Your task to perform on an android device: Search for the best burger restaurants on Maps Image 0: 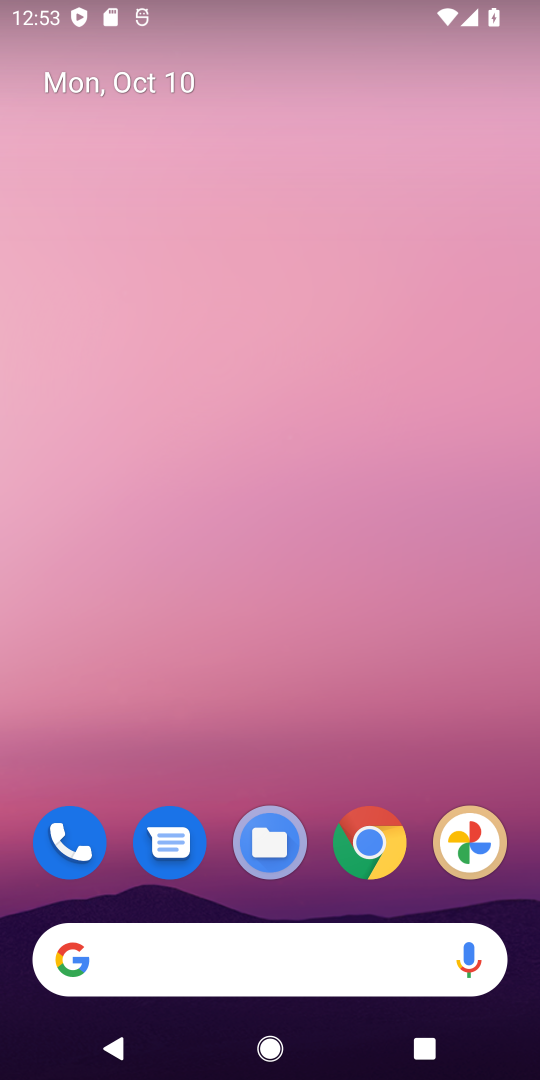
Step 0: click (354, 863)
Your task to perform on an android device: Search for the best burger restaurants on Maps Image 1: 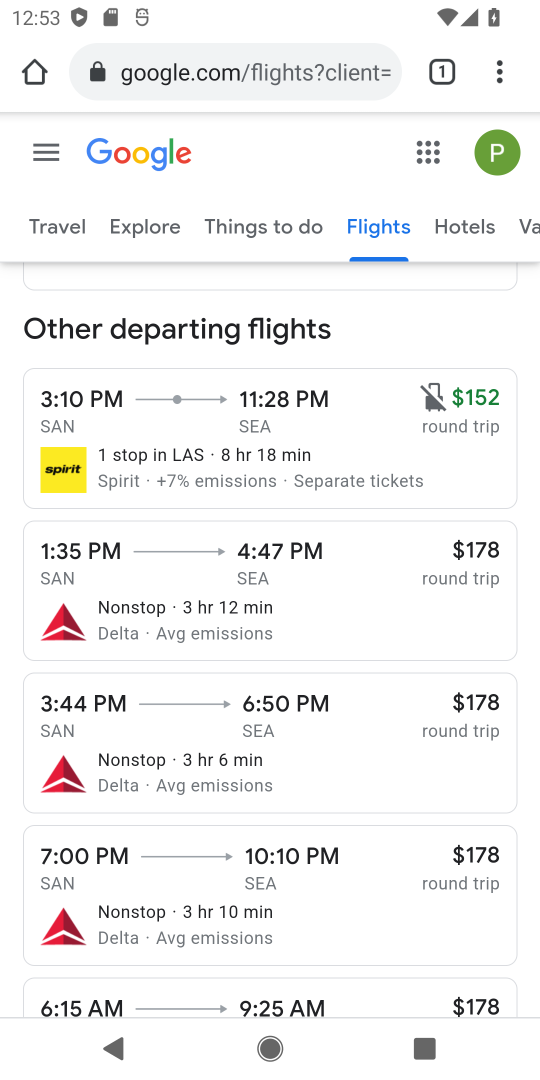
Step 1: click (224, 73)
Your task to perform on an android device: Search for the best burger restaurants on Maps Image 2: 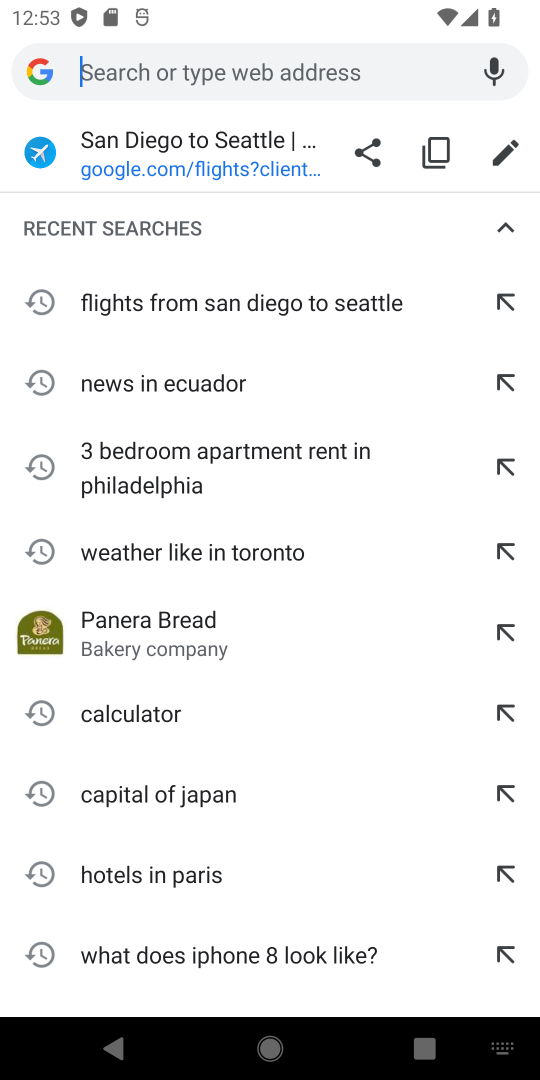
Step 2: press home button
Your task to perform on an android device: Search for the best burger restaurants on Maps Image 3: 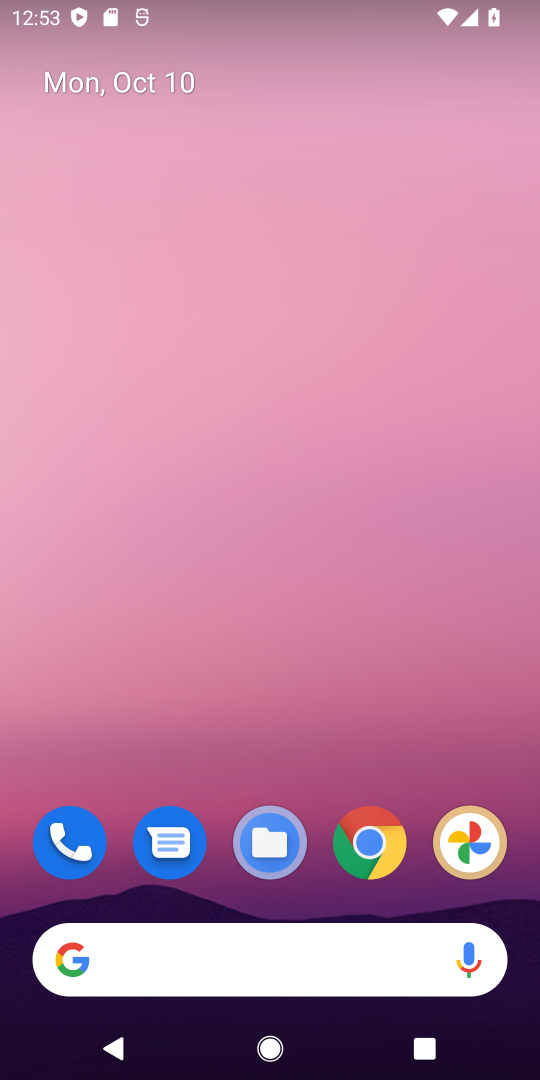
Step 3: drag from (257, 919) to (272, 195)
Your task to perform on an android device: Search for the best burger restaurants on Maps Image 4: 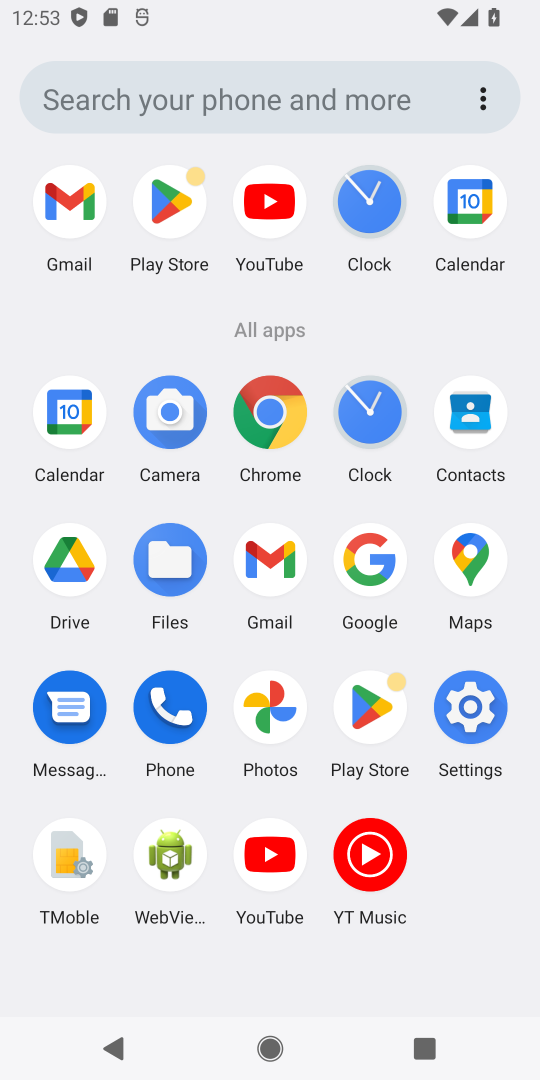
Step 4: click (461, 565)
Your task to perform on an android device: Search for the best burger restaurants on Maps Image 5: 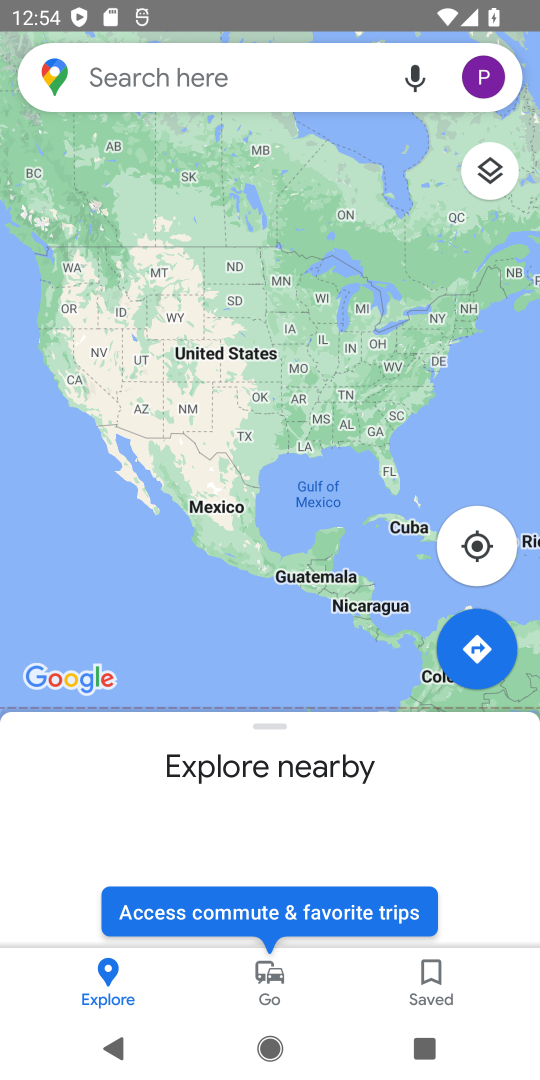
Step 5: click (252, 74)
Your task to perform on an android device: Search for the best burger restaurants on Maps Image 6: 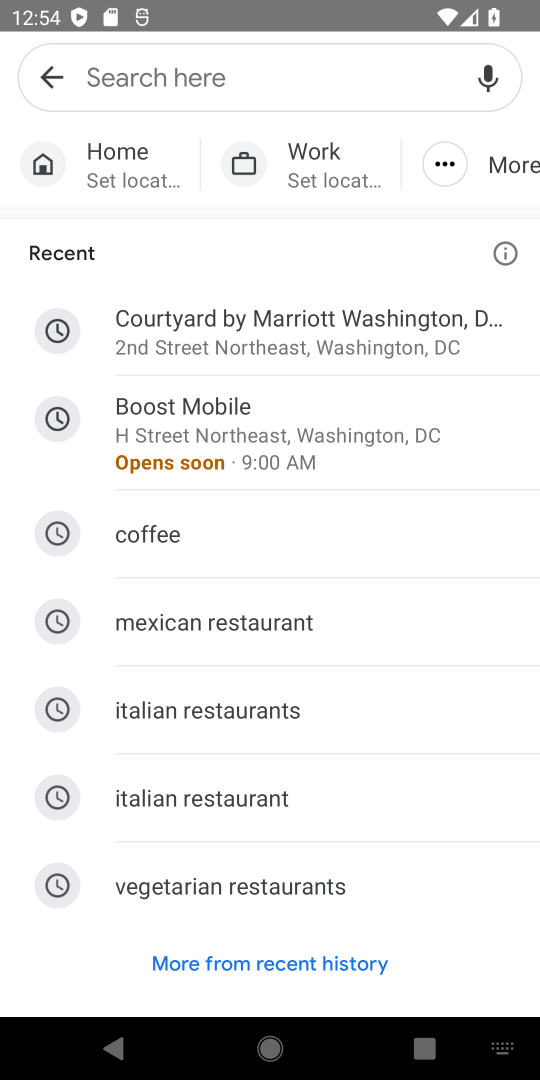
Step 6: type "best burger restaurants"
Your task to perform on an android device: Search for the best burger restaurants on Maps Image 7: 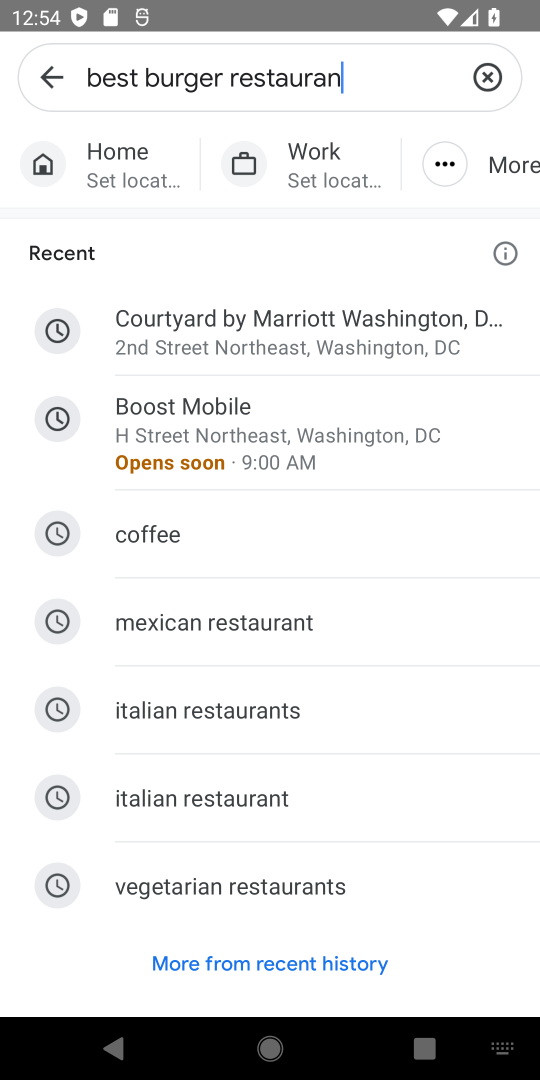
Step 7: type ""
Your task to perform on an android device: Search for the best burger restaurants on Maps Image 8: 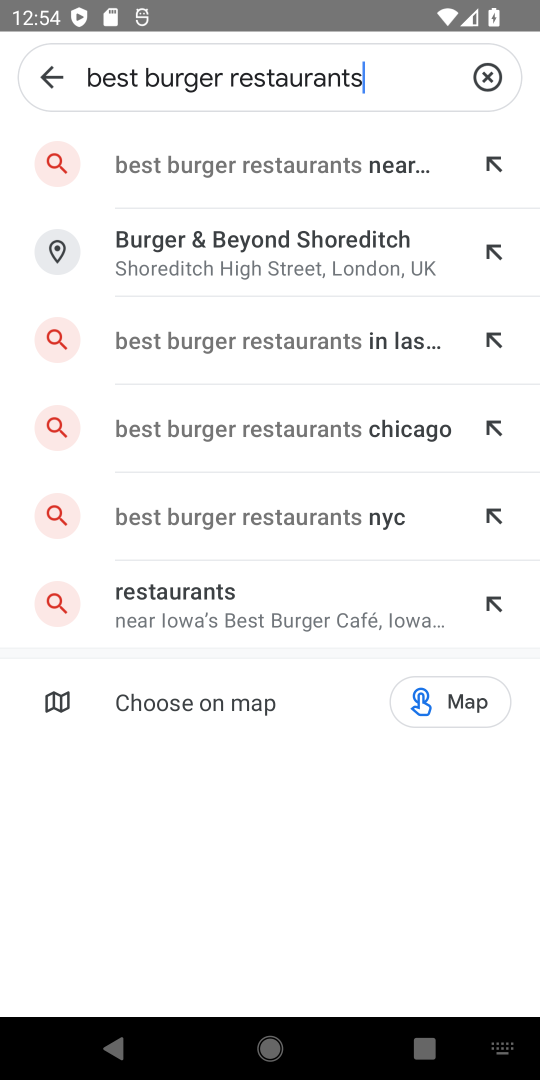
Step 8: press enter
Your task to perform on an android device: Search for the best burger restaurants on Maps Image 9: 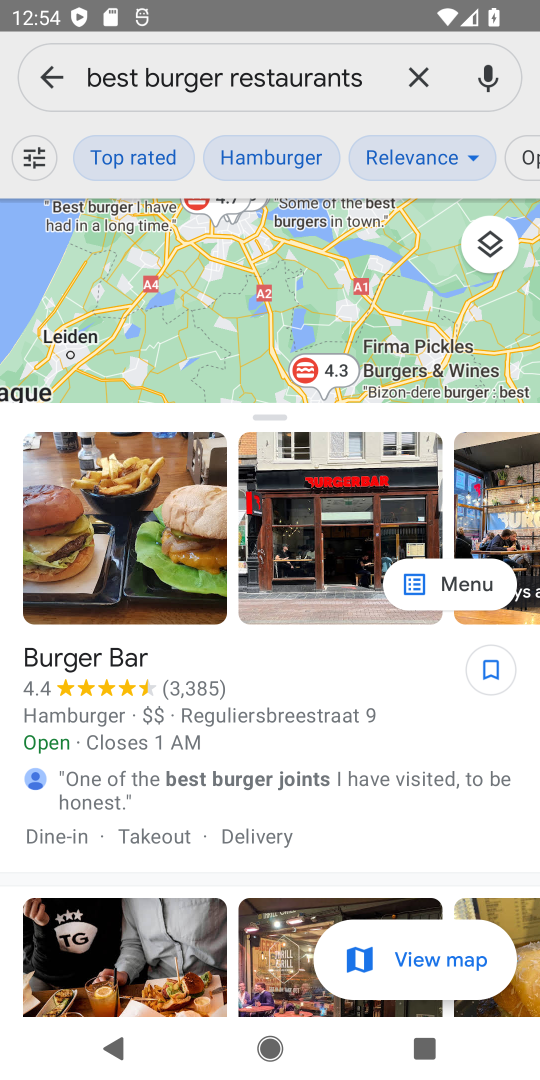
Step 9: task complete